Your task to perform on an android device: open chrome privacy settings Image 0: 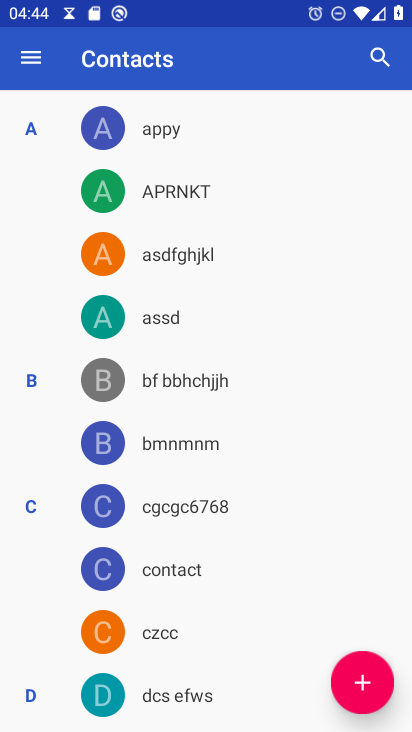
Step 0: press home button
Your task to perform on an android device: open chrome privacy settings Image 1: 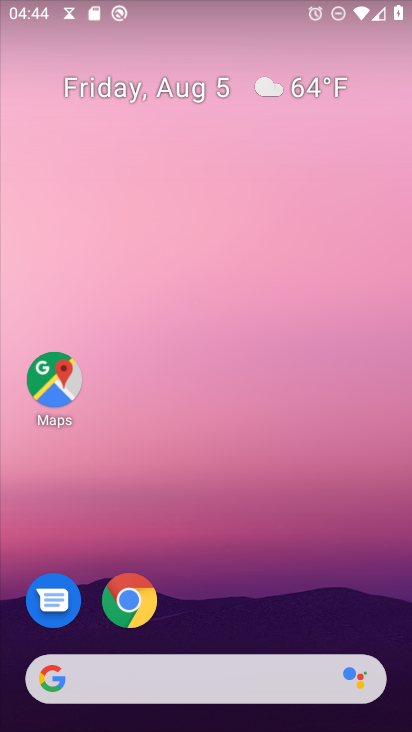
Step 1: click (134, 598)
Your task to perform on an android device: open chrome privacy settings Image 2: 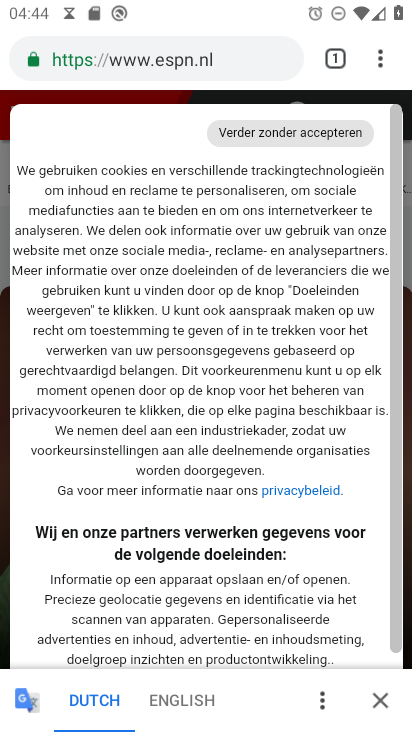
Step 2: click (382, 62)
Your task to perform on an android device: open chrome privacy settings Image 3: 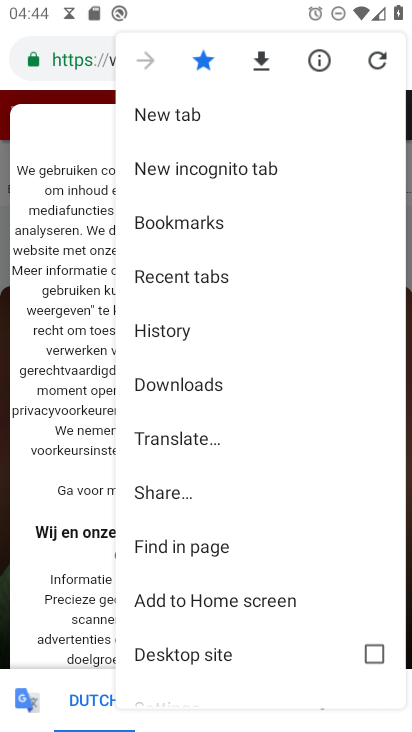
Step 3: drag from (205, 468) to (277, 321)
Your task to perform on an android device: open chrome privacy settings Image 4: 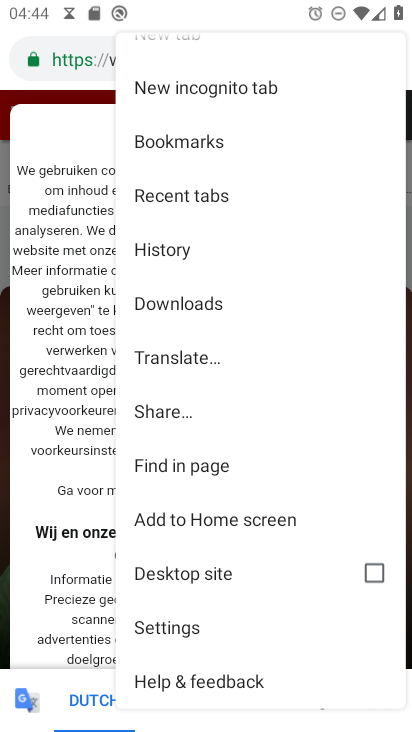
Step 4: click (191, 632)
Your task to perform on an android device: open chrome privacy settings Image 5: 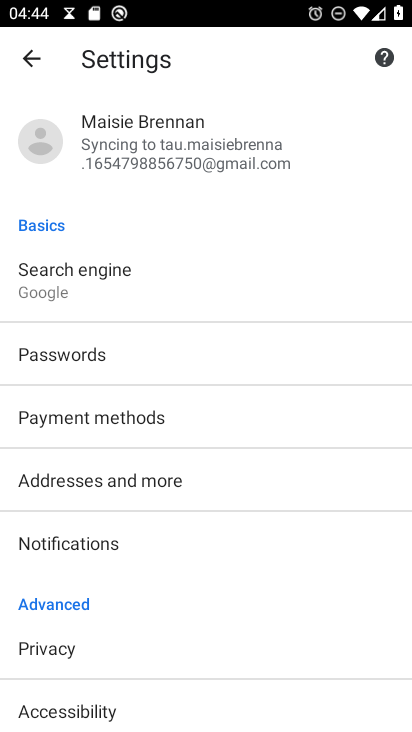
Step 5: click (79, 653)
Your task to perform on an android device: open chrome privacy settings Image 6: 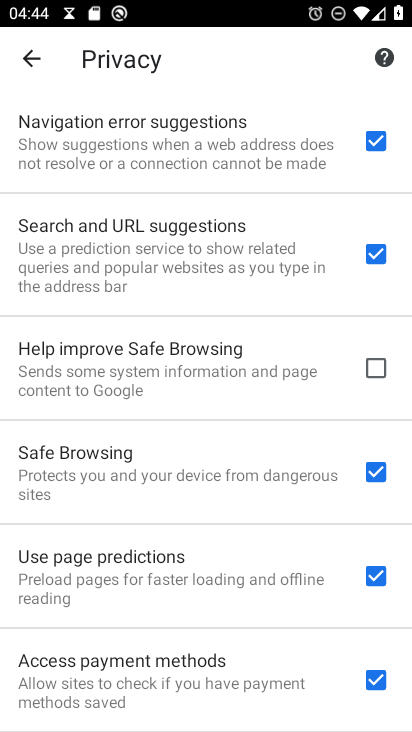
Step 6: task complete